Your task to perform on an android device: What's on my calendar today? Image 0: 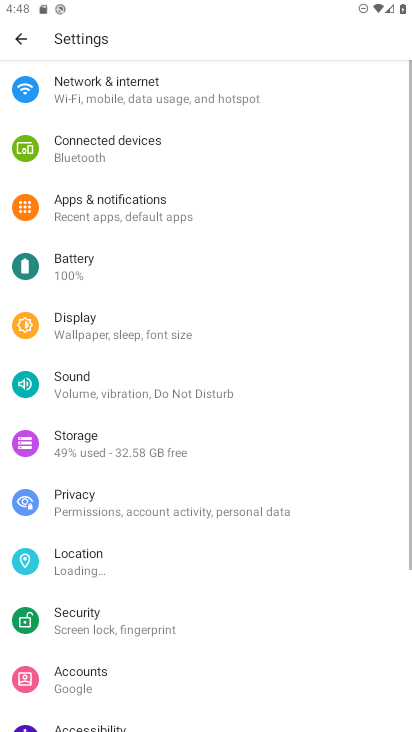
Step 0: press home button
Your task to perform on an android device: What's on my calendar today? Image 1: 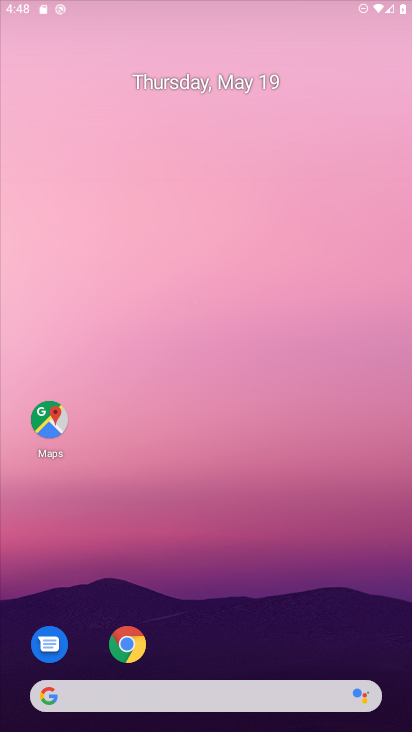
Step 1: drag from (343, 612) to (305, 19)
Your task to perform on an android device: What's on my calendar today? Image 2: 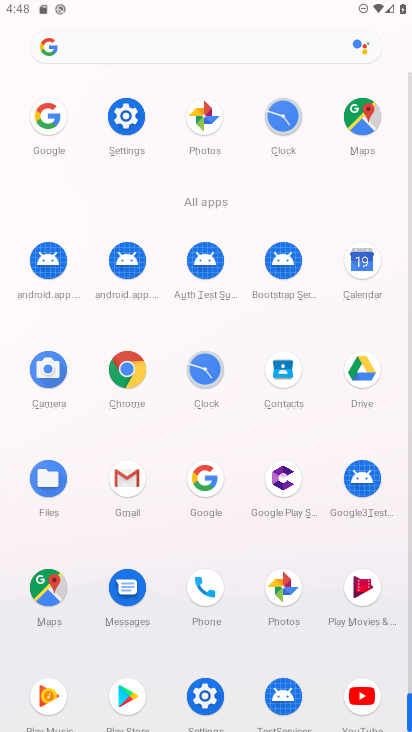
Step 2: click (352, 275)
Your task to perform on an android device: What's on my calendar today? Image 3: 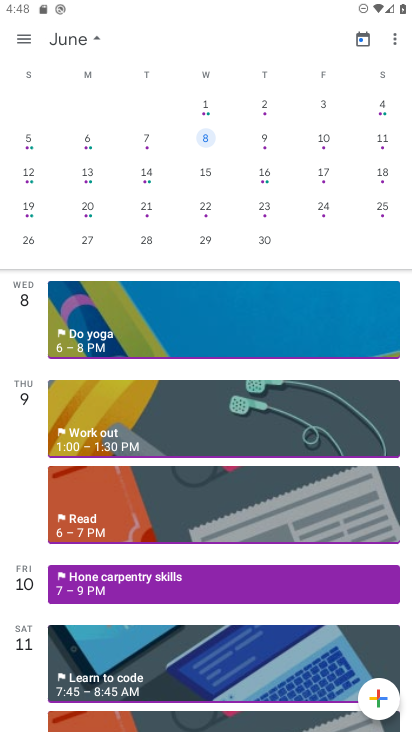
Step 3: drag from (62, 123) to (371, 119)
Your task to perform on an android device: What's on my calendar today? Image 4: 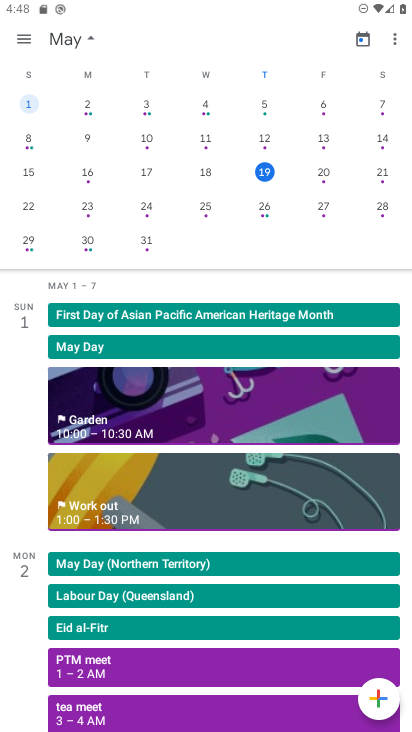
Step 4: click (93, 40)
Your task to perform on an android device: What's on my calendar today? Image 5: 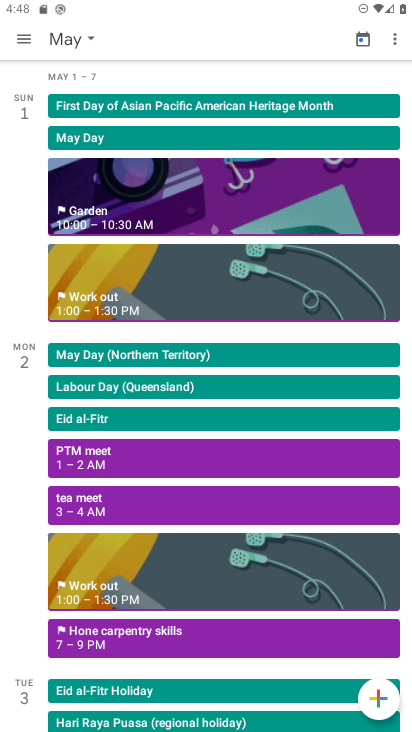
Step 5: task complete